Your task to perform on an android device: turn pop-ups off in chrome Image 0: 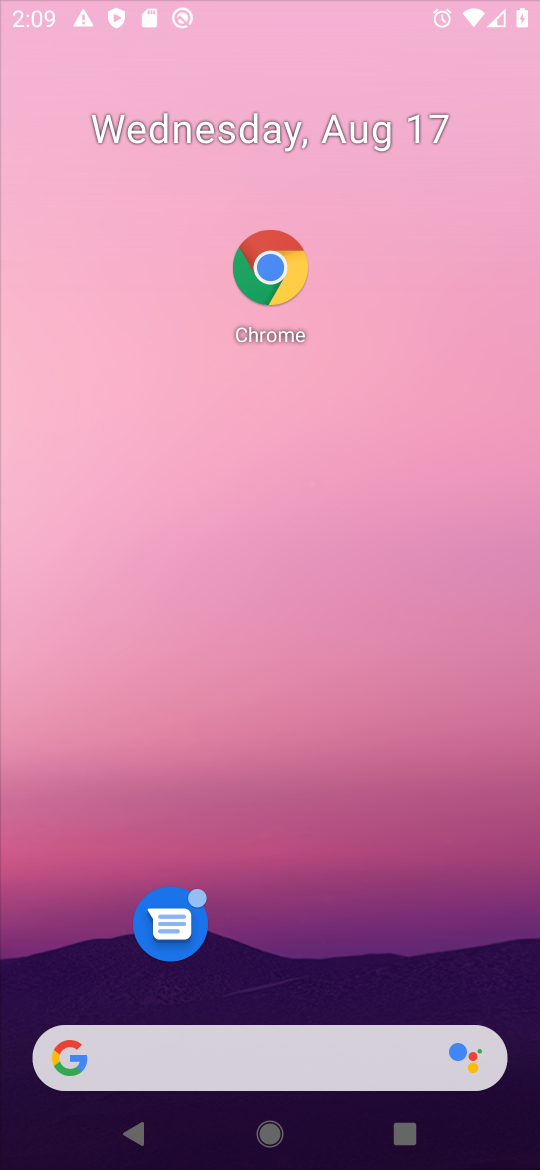
Step 0: drag from (299, 1016) to (155, 83)
Your task to perform on an android device: turn pop-ups off in chrome Image 1: 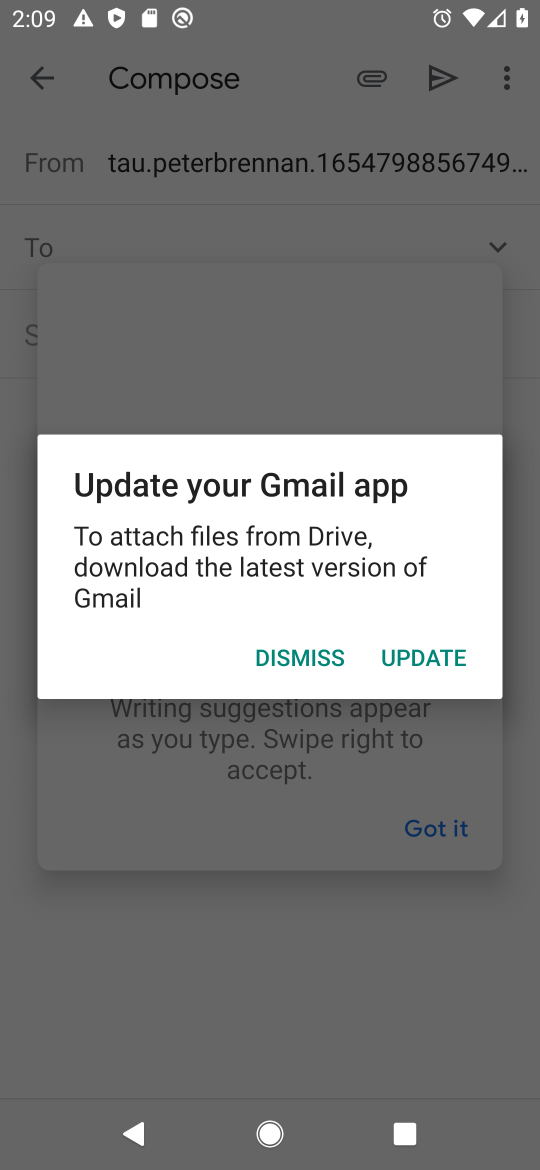
Step 1: press back button
Your task to perform on an android device: turn pop-ups off in chrome Image 2: 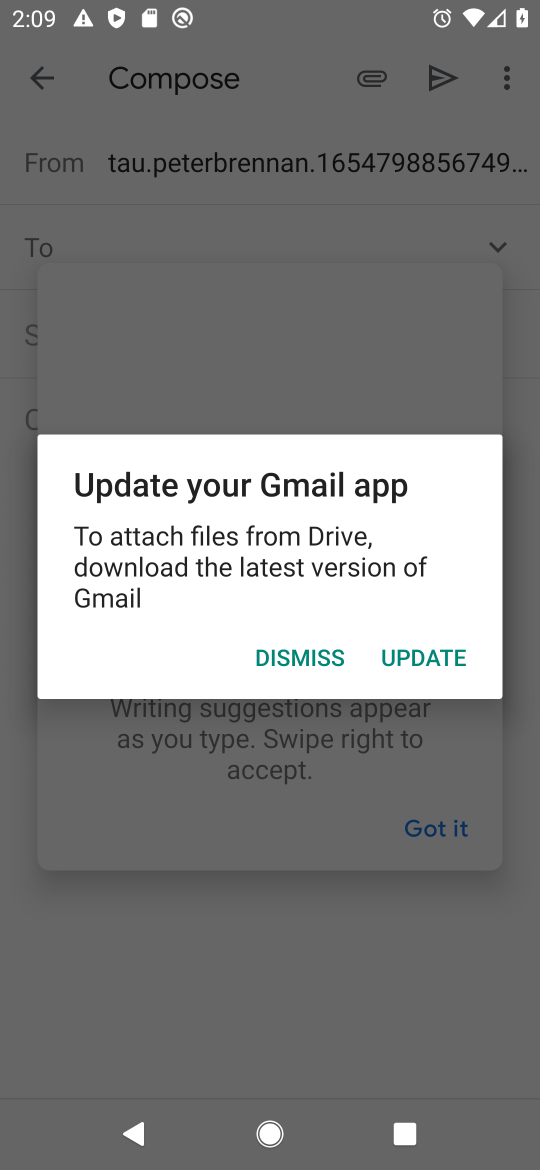
Step 2: press home button
Your task to perform on an android device: turn pop-ups off in chrome Image 3: 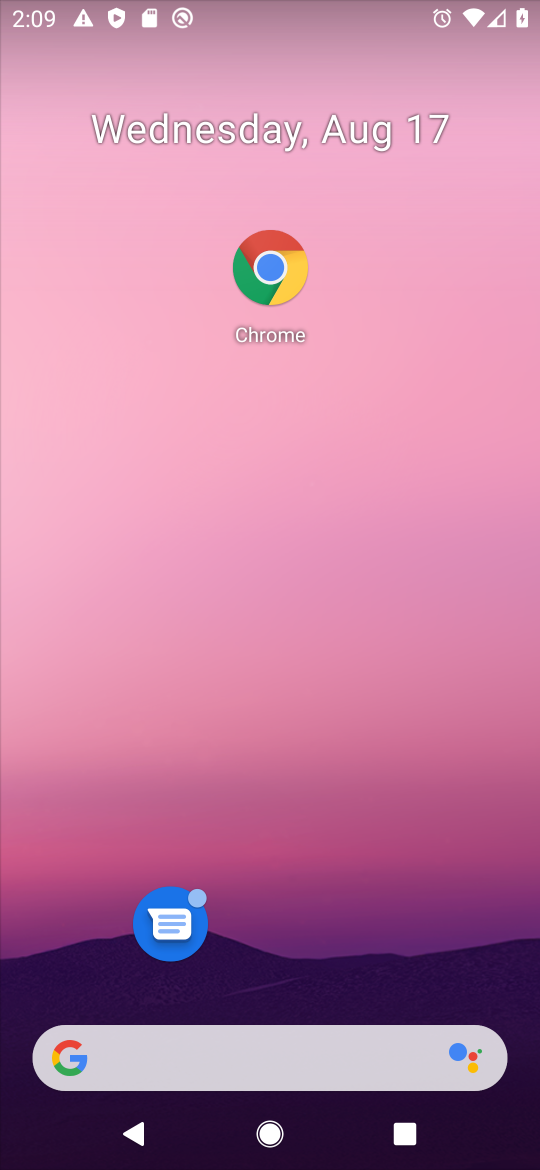
Step 3: click (282, 300)
Your task to perform on an android device: turn pop-ups off in chrome Image 4: 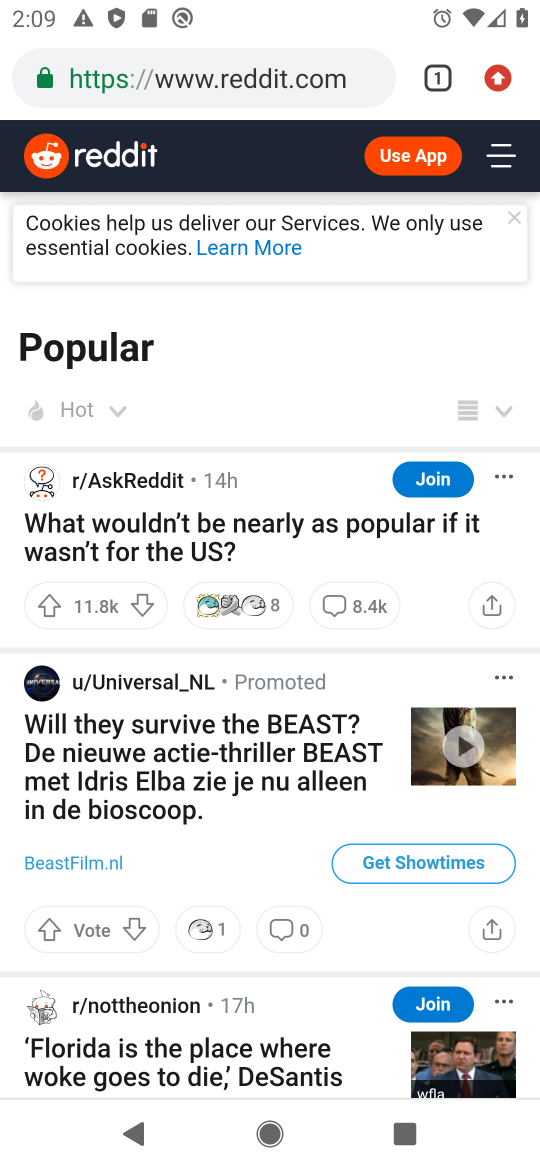
Step 4: drag from (506, 72) to (208, 1043)
Your task to perform on an android device: turn pop-ups off in chrome Image 5: 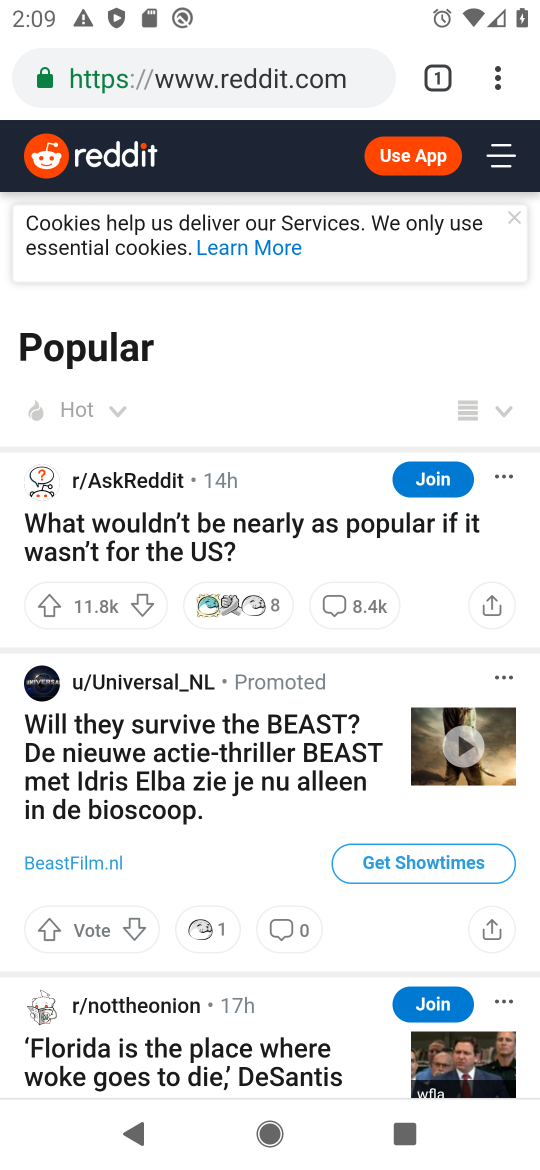
Step 5: drag from (490, 150) to (400, 672)
Your task to perform on an android device: turn pop-ups off in chrome Image 6: 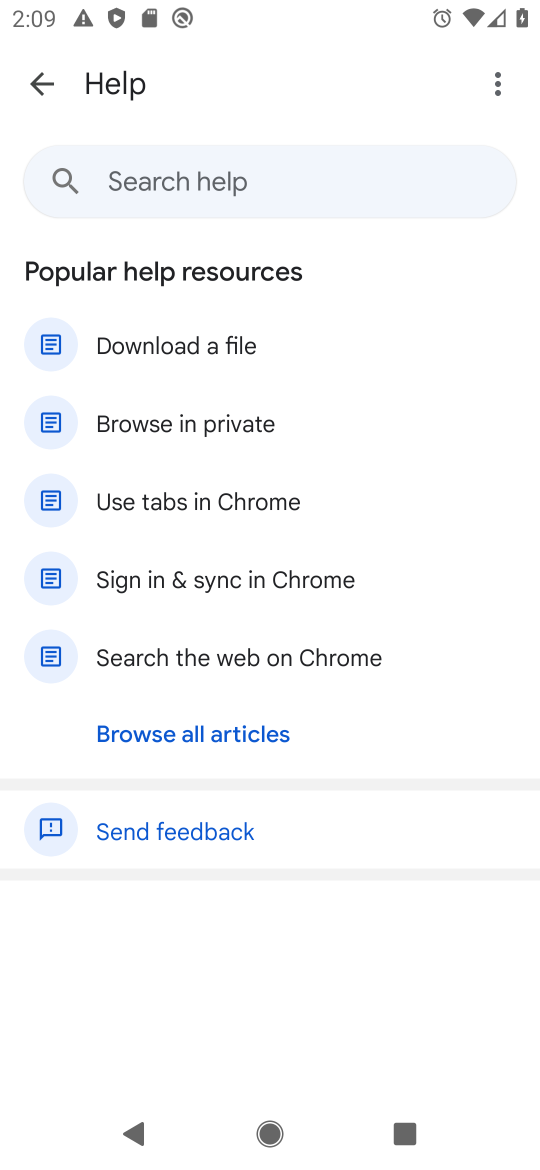
Step 6: press back button
Your task to perform on an android device: turn pop-ups off in chrome Image 7: 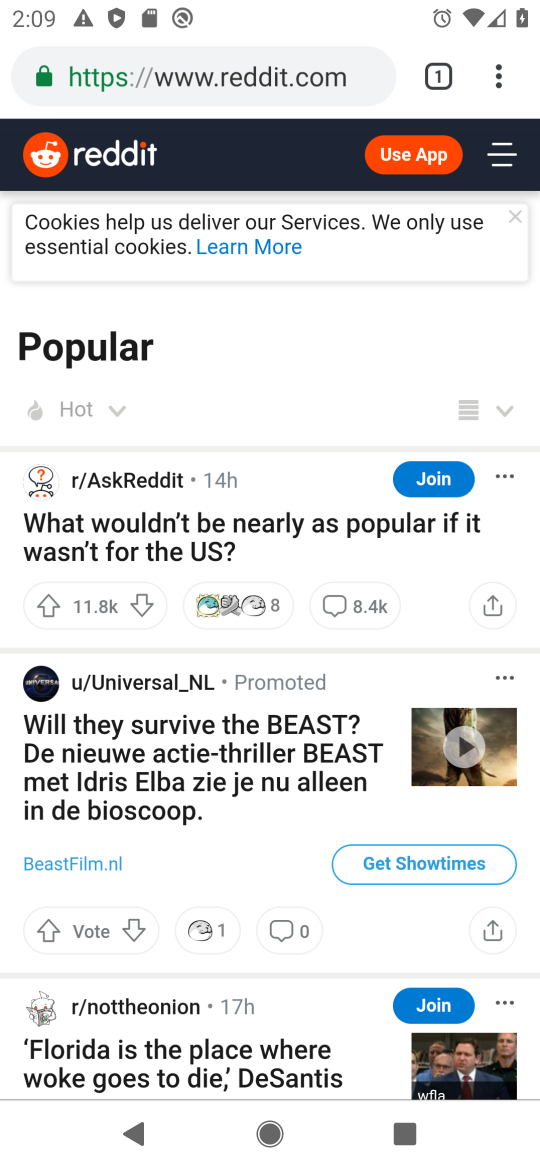
Step 7: drag from (58, 88) to (2, 831)
Your task to perform on an android device: turn pop-ups off in chrome Image 8: 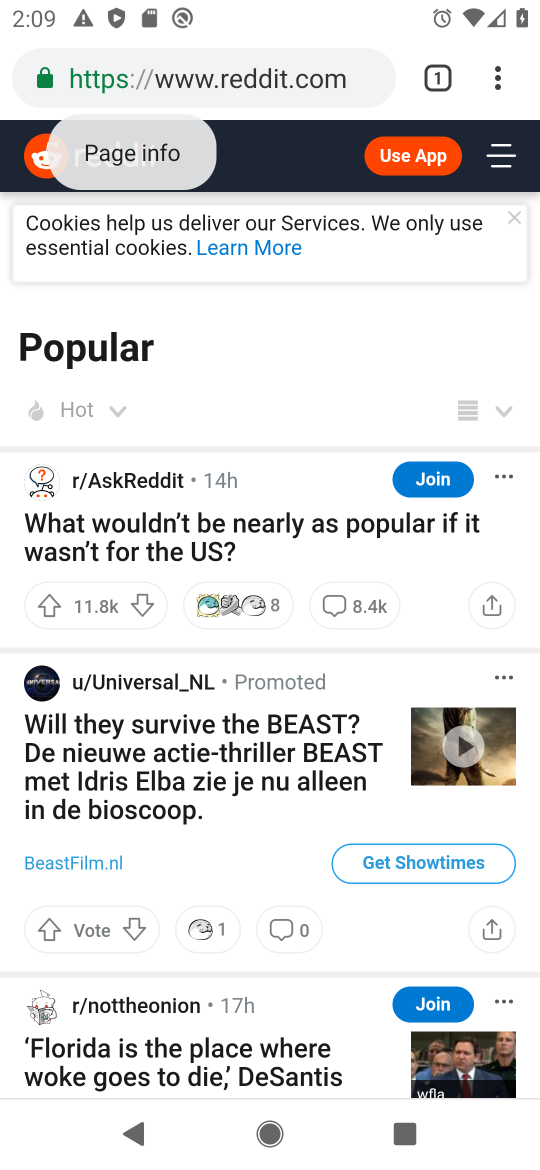
Step 8: drag from (492, 90) to (217, 991)
Your task to perform on an android device: turn pop-ups off in chrome Image 9: 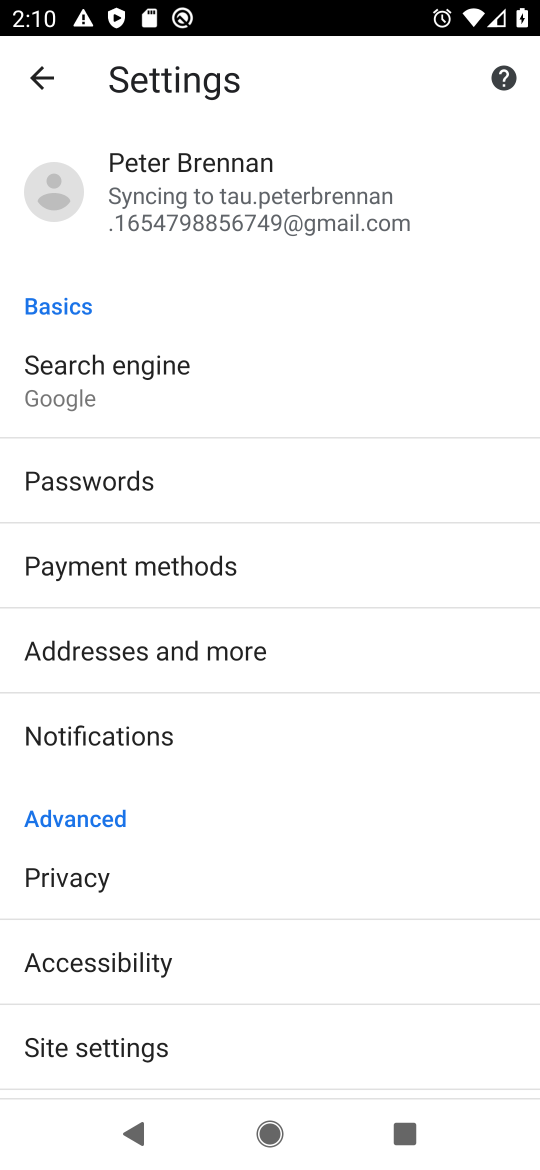
Step 9: click (141, 1048)
Your task to perform on an android device: turn pop-ups off in chrome Image 10: 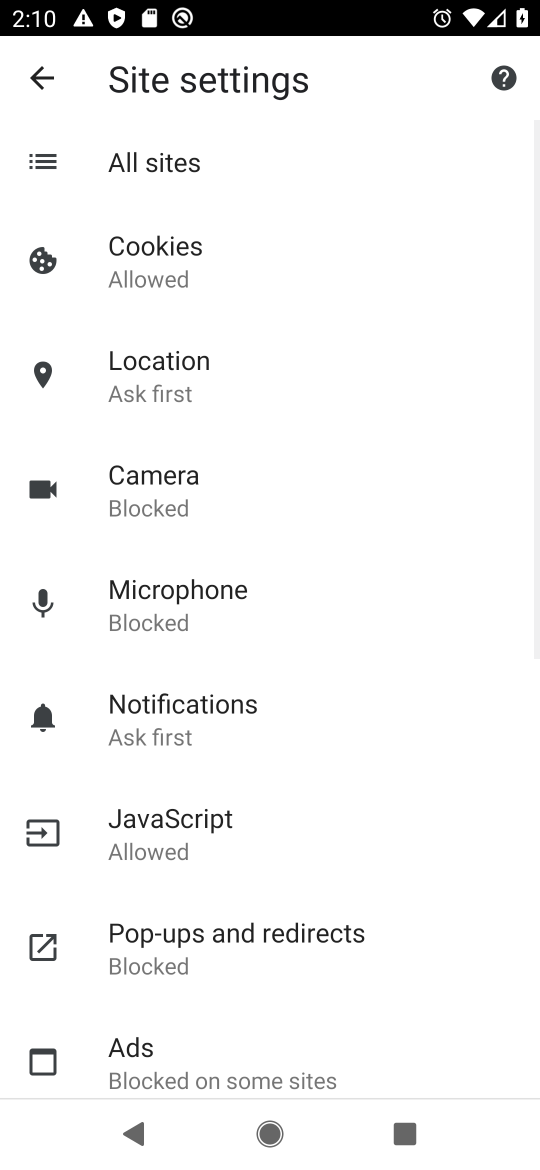
Step 10: click (148, 929)
Your task to perform on an android device: turn pop-ups off in chrome Image 11: 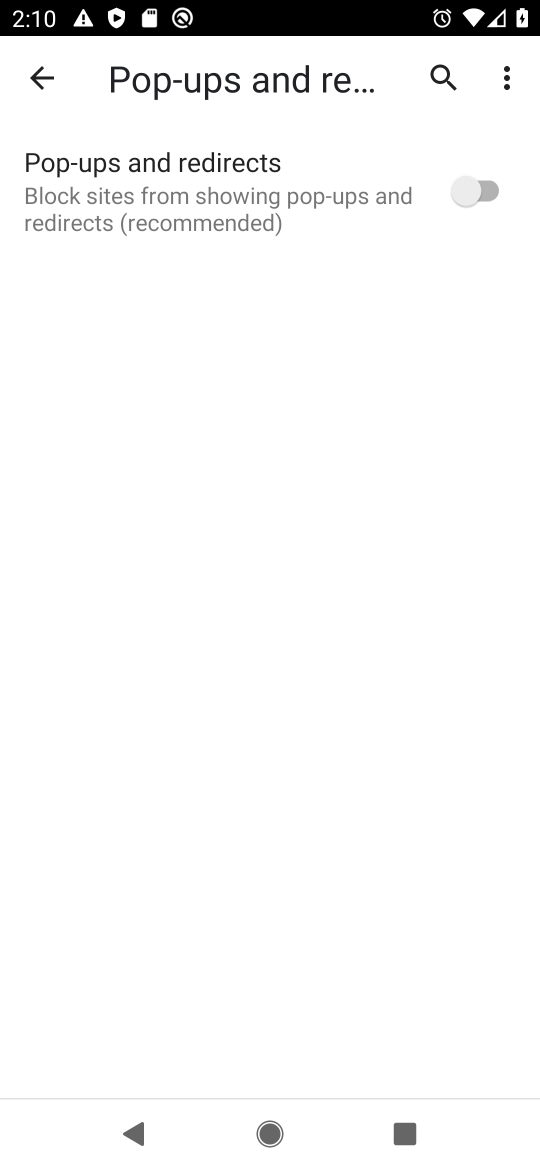
Step 11: task complete